Your task to perform on an android device: allow notifications from all sites in the chrome app Image 0: 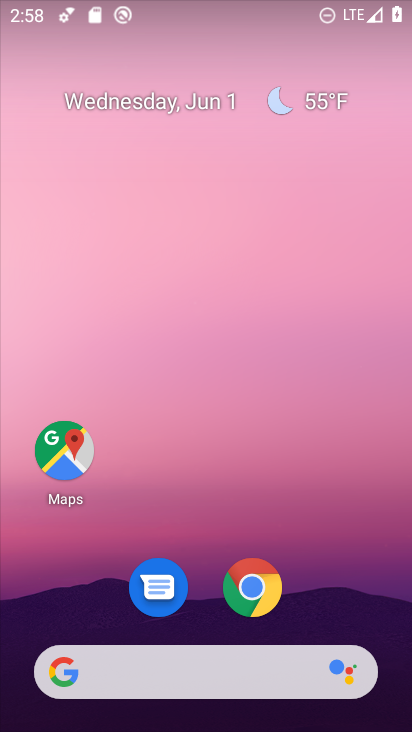
Step 0: press home button
Your task to perform on an android device: allow notifications from all sites in the chrome app Image 1: 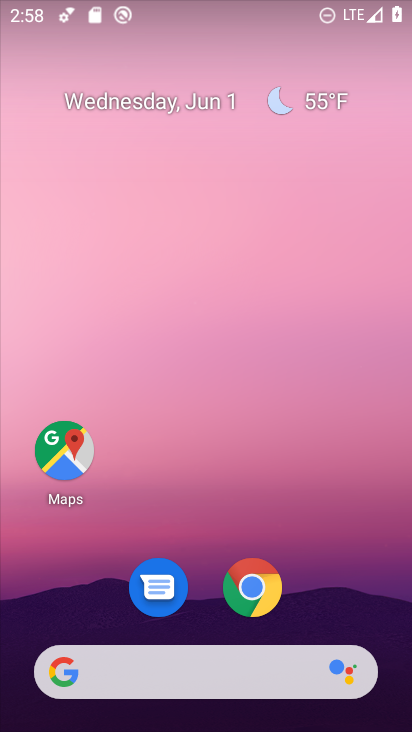
Step 1: drag from (202, 680) to (258, 134)
Your task to perform on an android device: allow notifications from all sites in the chrome app Image 2: 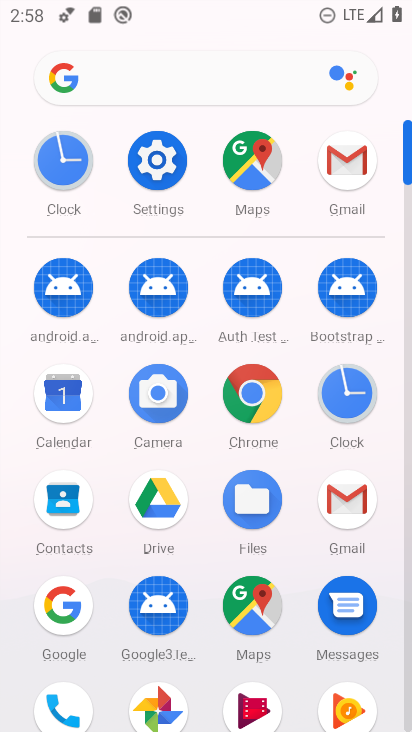
Step 2: click (259, 410)
Your task to perform on an android device: allow notifications from all sites in the chrome app Image 3: 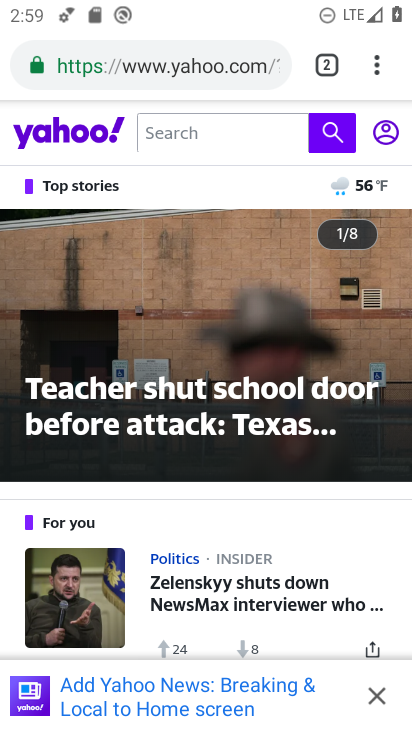
Step 3: drag from (379, 64) to (138, 634)
Your task to perform on an android device: allow notifications from all sites in the chrome app Image 4: 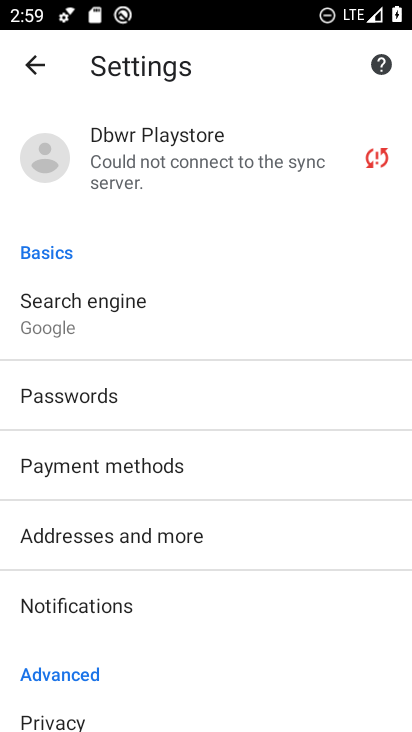
Step 4: drag from (142, 620) to (133, 124)
Your task to perform on an android device: allow notifications from all sites in the chrome app Image 5: 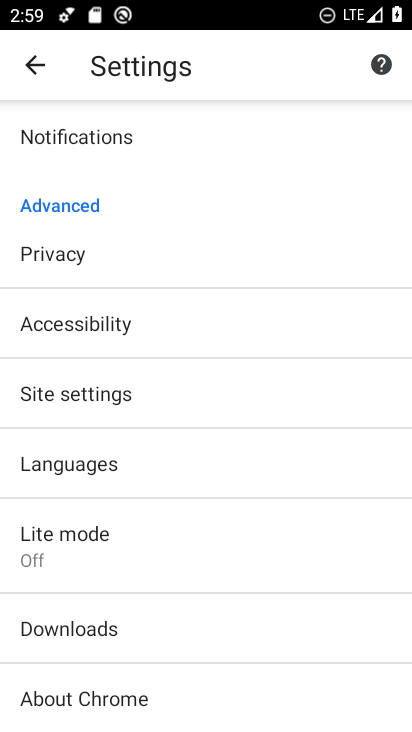
Step 5: click (81, 416)
Your task to perform on an android device: allow notifications from all sites in the chrome app Image 6: 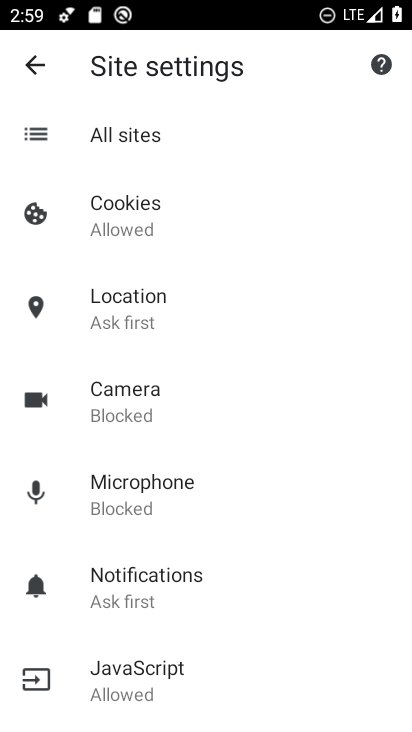
Step 6: click (143, 615)
Your task to perform on an android device: allow notifications from all sites in the chrome app Image 7: 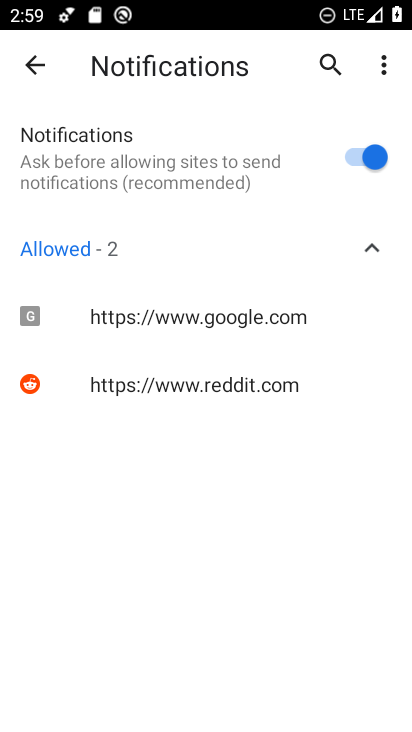
Step 7: task complete